Your task to perform on an android device: find which apps use the phone's location Image 0: 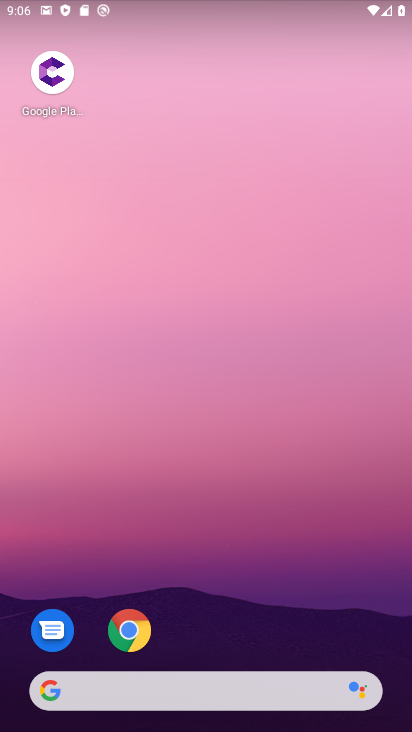
Step 0: task complete